Your task to perform on an android device: When is my next meeting? Image 0: 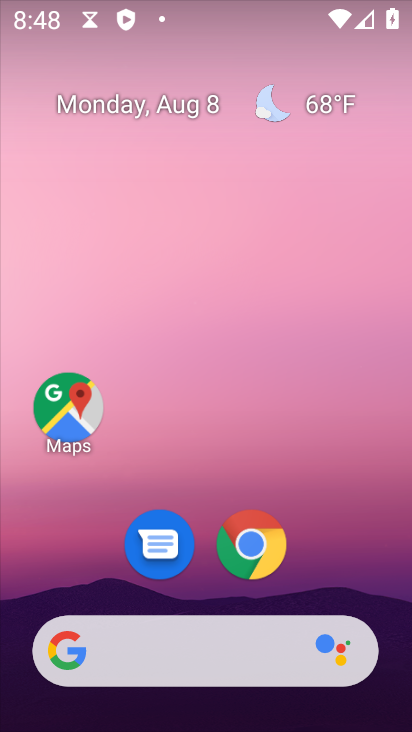
Step 0: press home button
Your task to perform on an android device: When is my next meeting? Image 1: 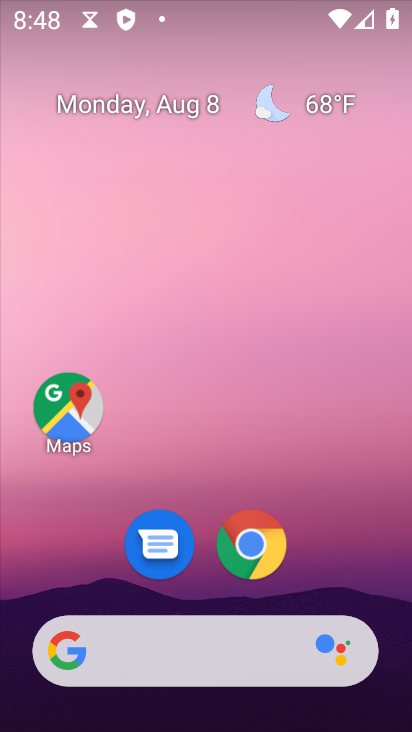
Step 1: drag from (208, 586) to (271, 2)
Your task to perform on an android device: When is my next meeting? Image 2: 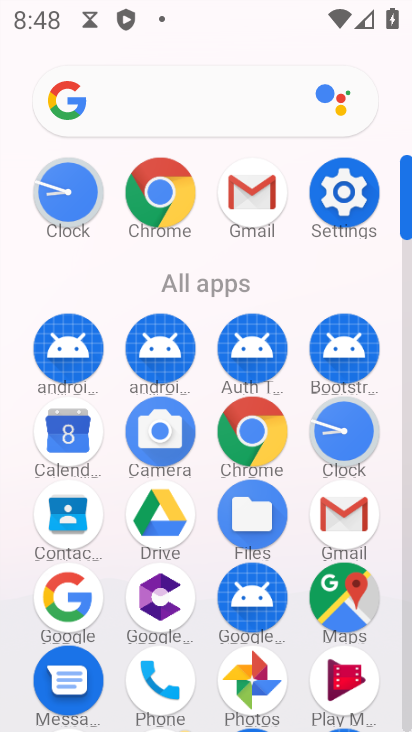
Step 2: click (67, 433)
Your task to perform on an android device: When is my next meeting? Image 3: 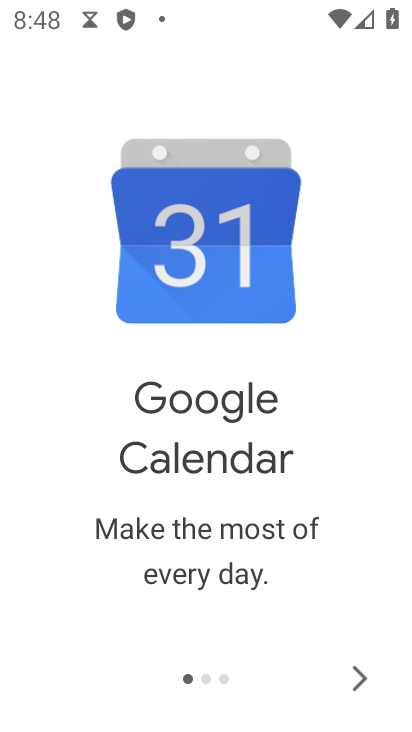
Step 3: click (349, 673)
Your task to perform on an android device: When is my next meeting? Image 4: 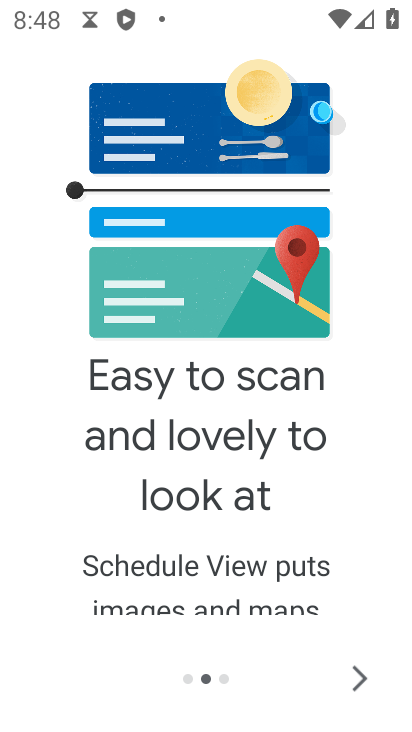
Step 4: click (354, 675)
Your task to perform on an android device: When is my next meeting? Image 5: 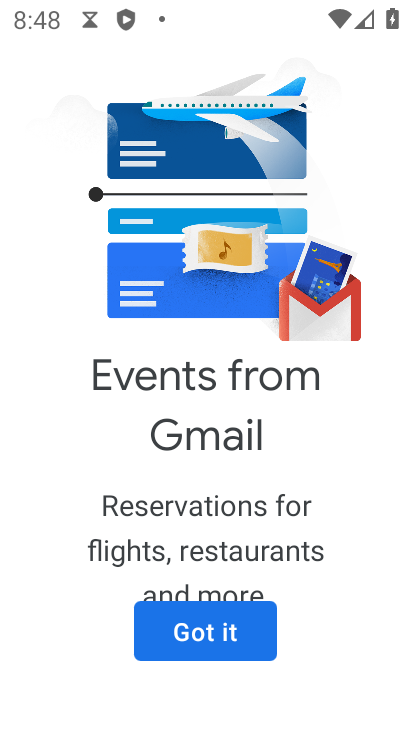
Step 5: click (195, 616)
Your task to perform on an android device: When is my next meeting? Image 6: 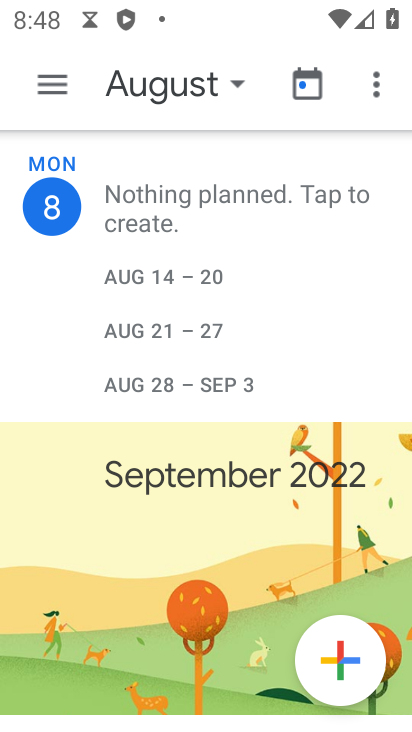
Step 6: task complete